Your task to perform on an android device: turn on data saver in the chrome app Image 0: 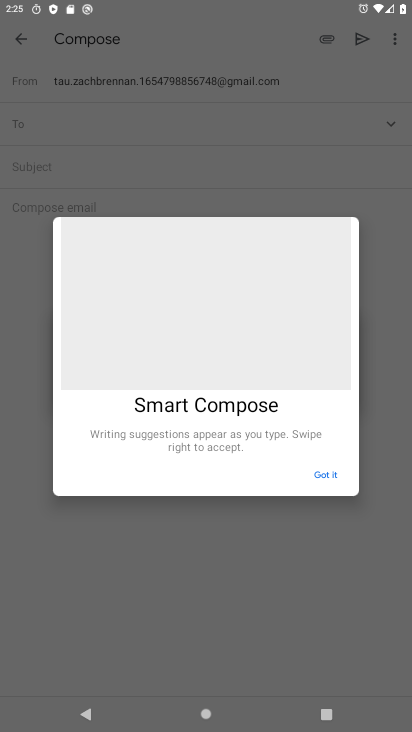
Step 0: press home button
Your task to perform on an android device: turn on data saver in the chrome app Image 1: 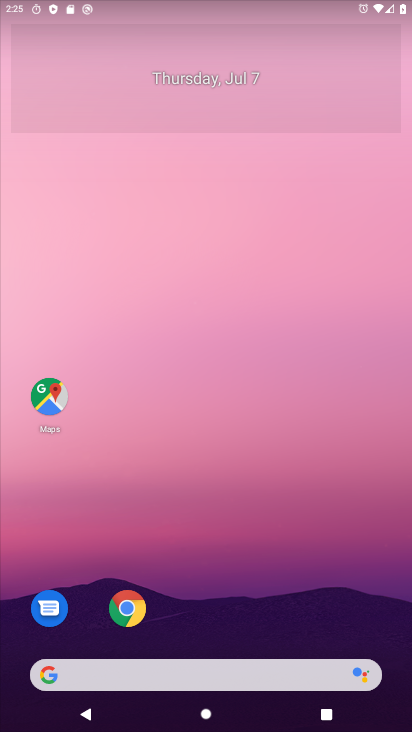
Step 1: click (126, 604)
Your task to perform on an android device: turn on data saver in the chrome app Image 2: 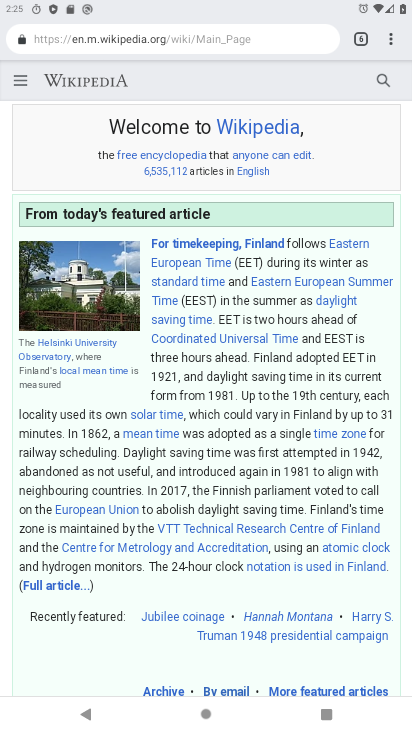
Step 2: click (392, 43)
Your task to perform on an android device: turn on data saver in the chrome app Image 3: 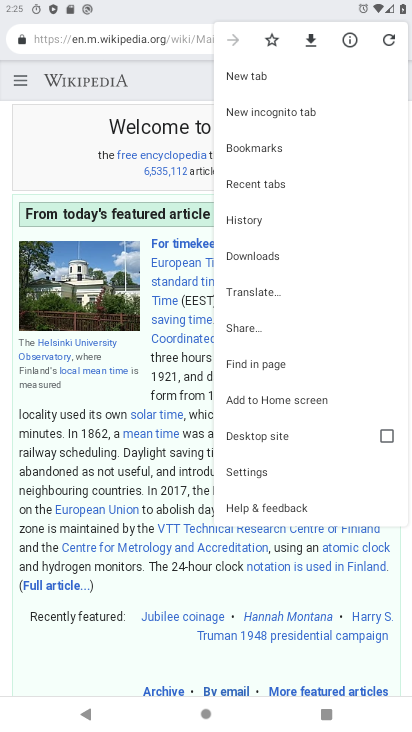
Step 3: click (248, 470)
Your task to perform on an android device: turn on data saver in the chrome app Image 4: 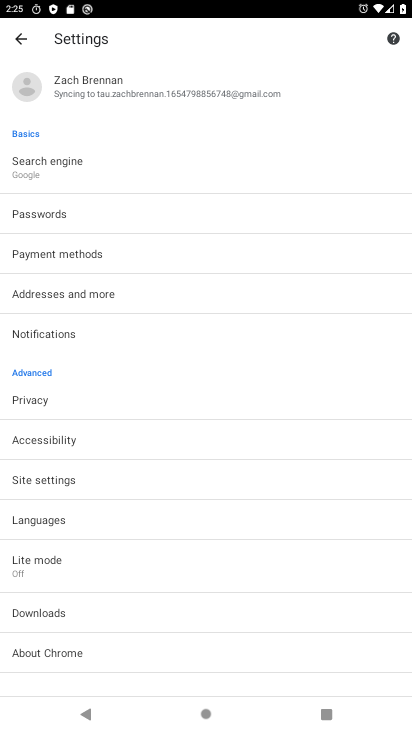
Step 4: click (43, 559)
Your task to perform on an android device: turn on data saver in the chrome app Image 5: 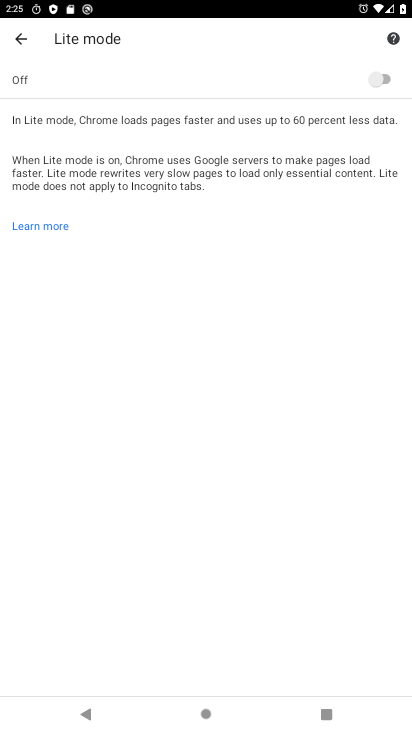
Step 5: click (384, 73)
Your task to perform on an android device: turn on data saver in the chrome app Image 6: 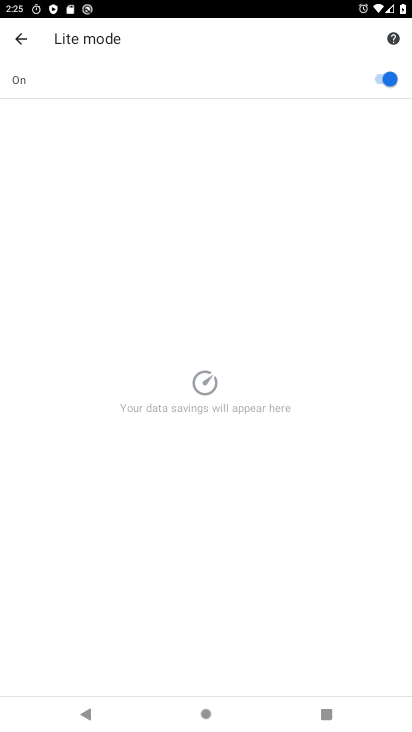
Step 6: task complete